Your task to perform on an android device: delete location history Image 0: 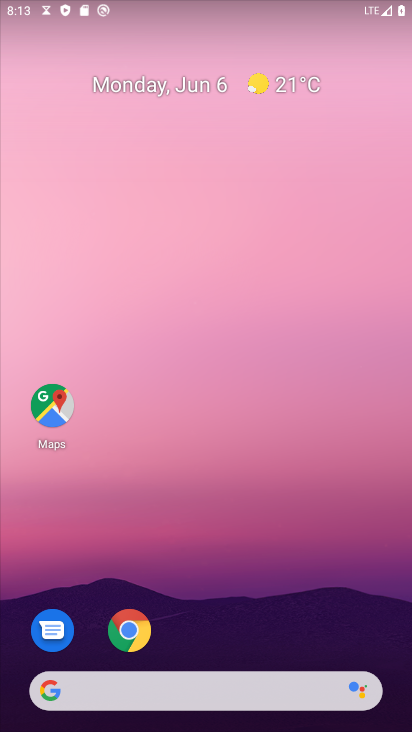
Step 0: click (52, 405)
Your task to perform on an android device: delete location history Image 1: 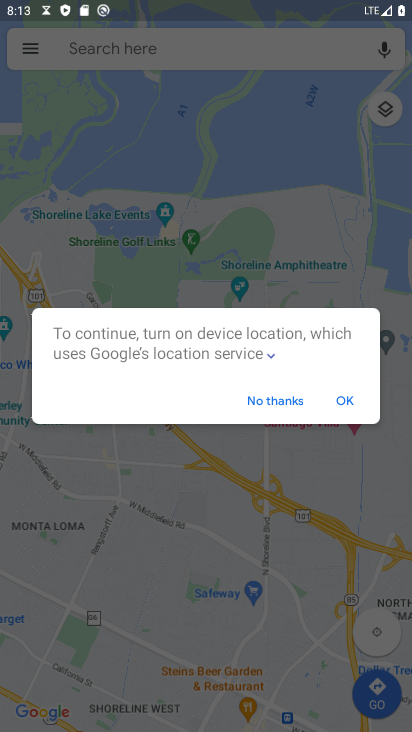
Step 1: click (274, 401)
Your task to perform on an android device: delete location history Image 2: 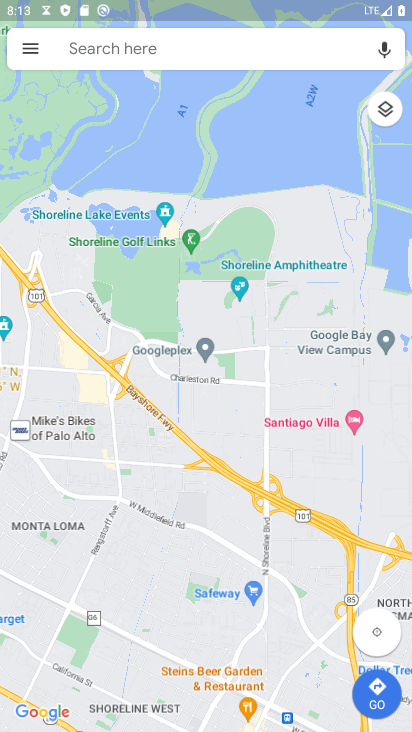
Step 2: click (29, 48)
Your task to perform on an android device: delete location history Image 3: 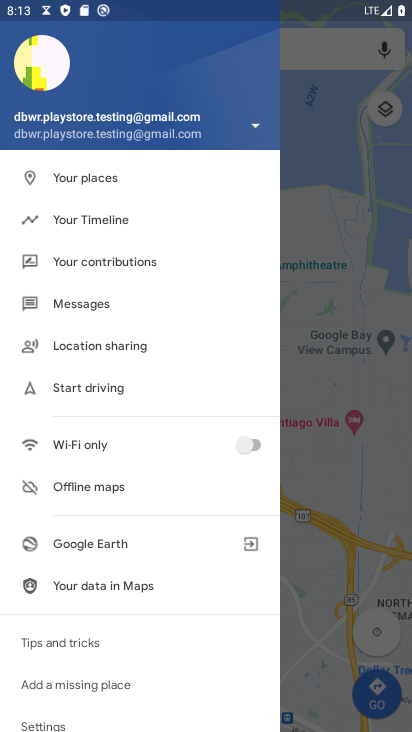
Step 3: drag from (133, 627) to (149, 379)
Your task to perform on an android device: delete location history Image 4: 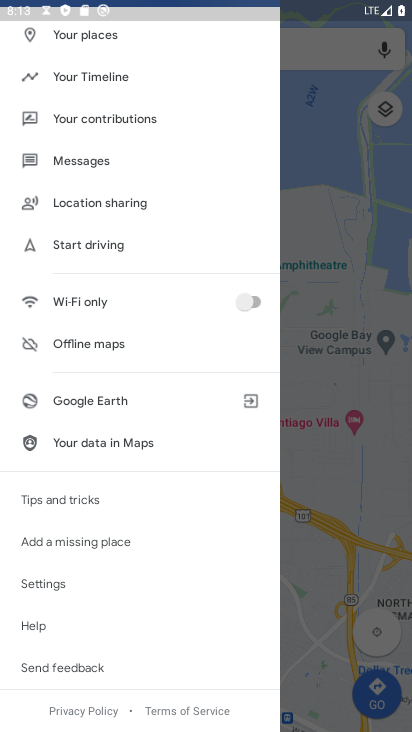
Step 4: click (48, 590)
Your task to perform on an android device: delete location history Image 5: 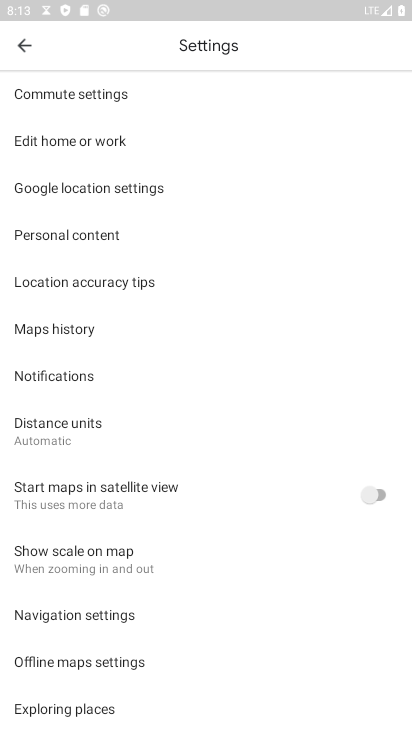
Step 5: click (83, 233)
Your task to perform on an android device: delete location history Image 6: 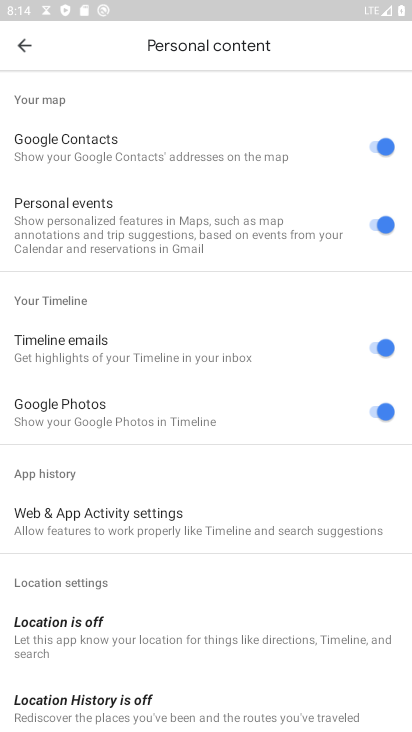
Step 6: drag from (130, 587) to (153, 158)
Your task to perform on an android device: delete location history Image 7: 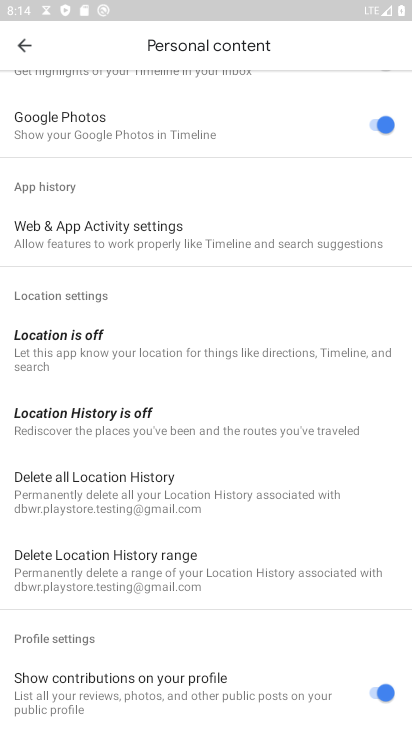
Step 7: click (118, 497)
Your task to perform on an android device: delete location history Image 8: 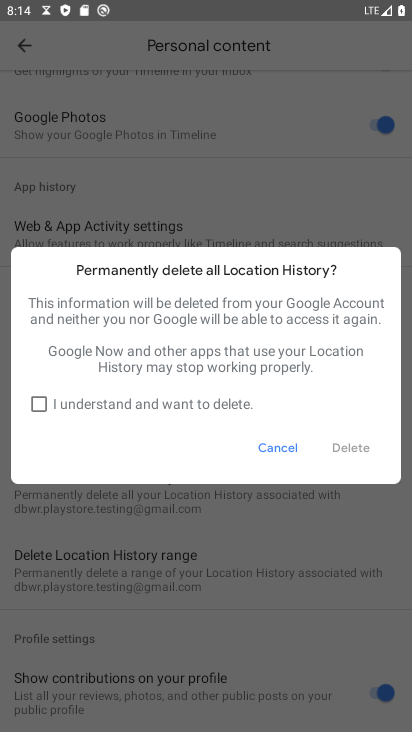
Step 8: click (37, 404)
Your task to perform on an android device: delete location history Image 9: 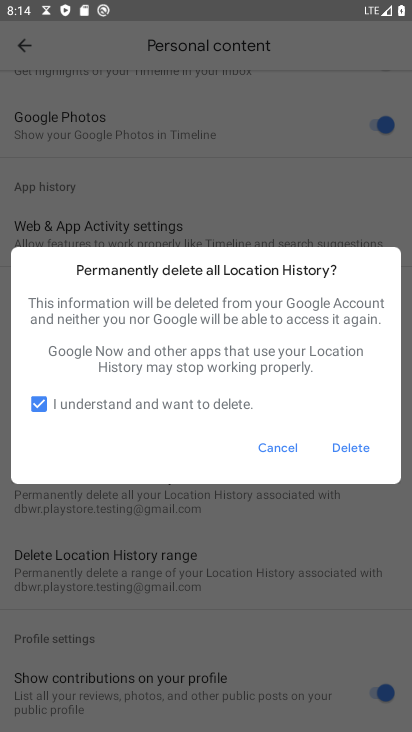
Step 9: click (353, 450)
Your task to perform on an android device: delete location history Image 10: 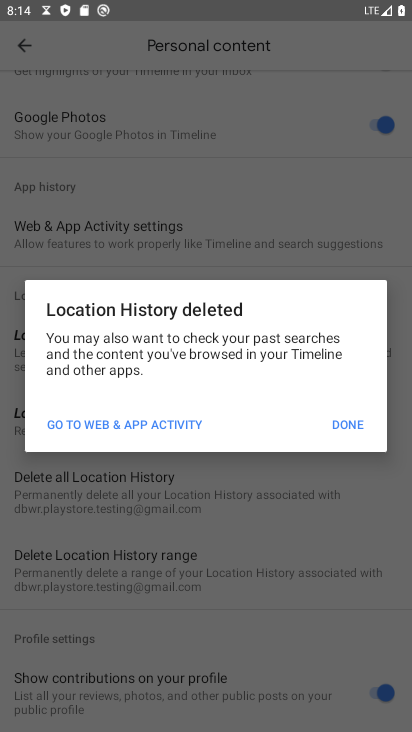
Step 10: click (354, 428)
Your task to perform on an android device: delete location history Image 11: 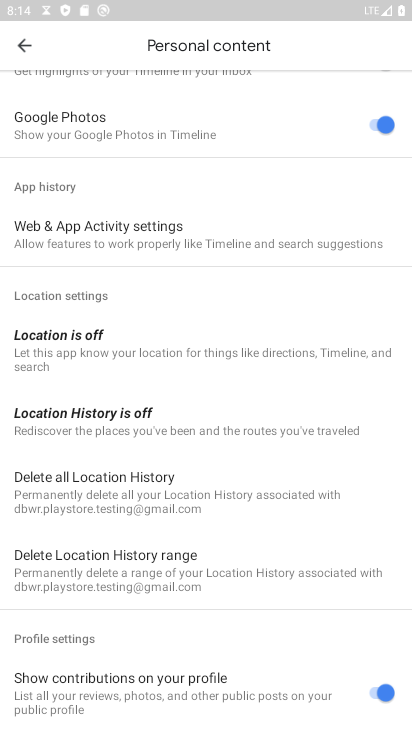
Step 11: task complete